Your task to perform on an android device: Do I have any events today? Image 0: 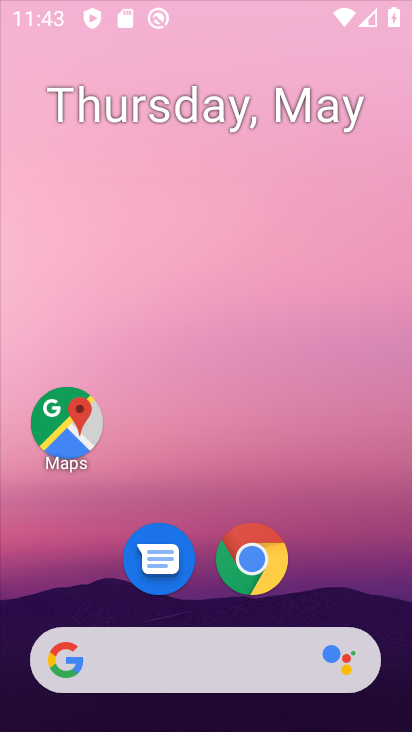
Step 0: drag from (271, 217) to (318, 24)
Your task to perform on an android device: Do I have any events today? Image 1: 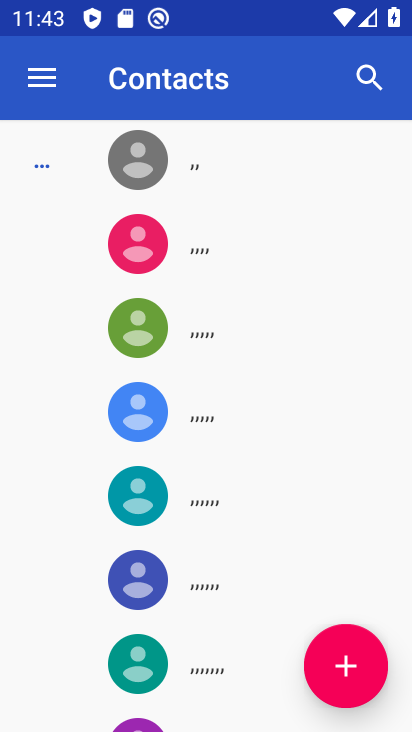
Step 1: press home button
Your task to perform on an android device: Do I have any events today? Image 2: 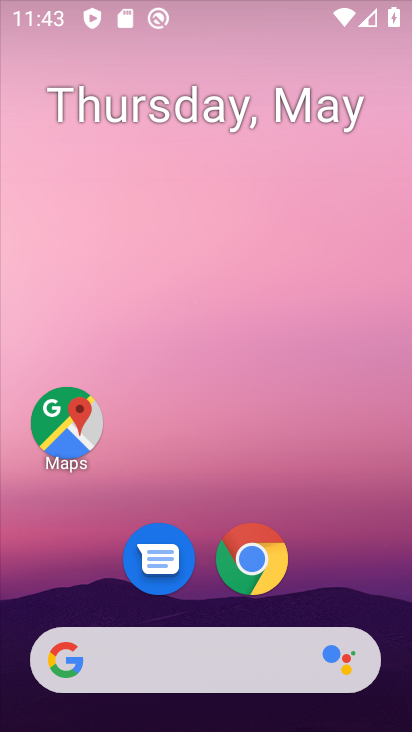
Step 2: drag from (209, 627) to (277, 8)
Your task to perform on an android device: Do I have any events today? Image 3: 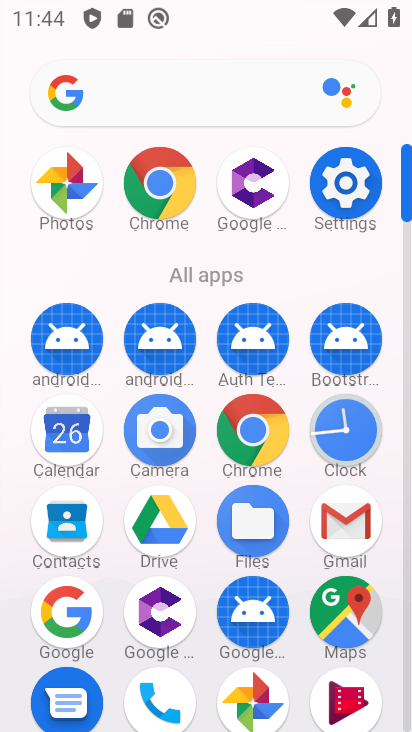
Step 3: click (82, 446)
Your task to perform on an android device: Do I have any events today? Image 4: 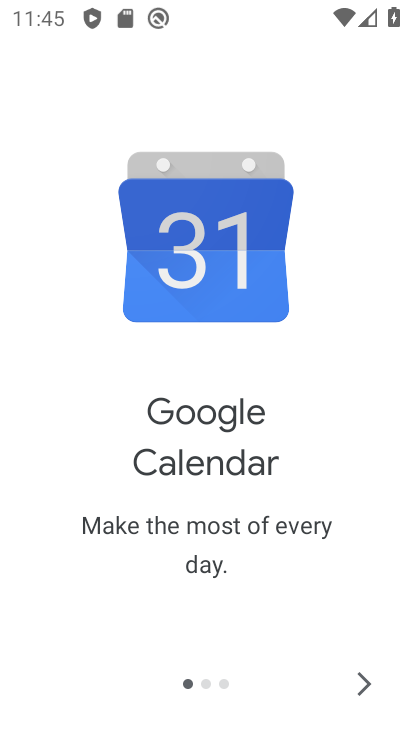
Step 4: click (361, 683)
Your task to perform on an android device: Do I have any events today? Image 5: 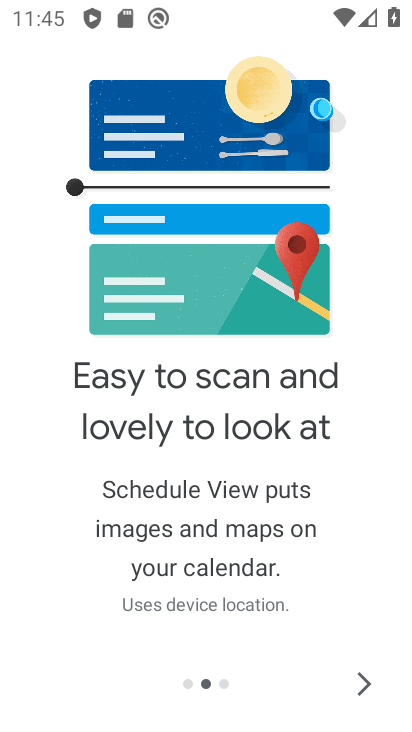
Step 5: click (356, 670)
Your task to perform on an android device: Do I have any events today? Image 6: 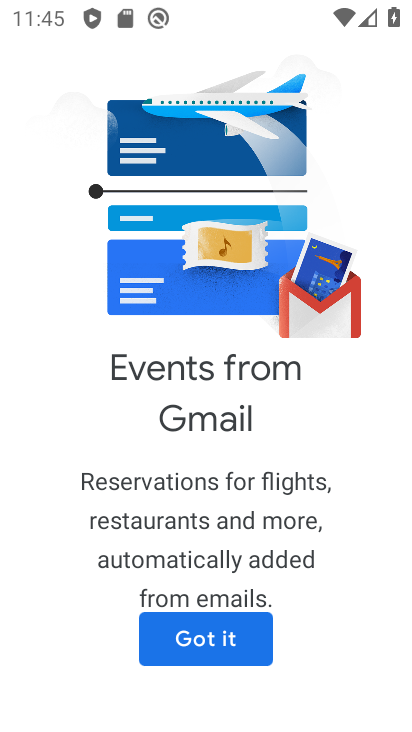
Step 6: click (241, 646)
Your task to perform on an android device: Do I have any events today? Image 7: 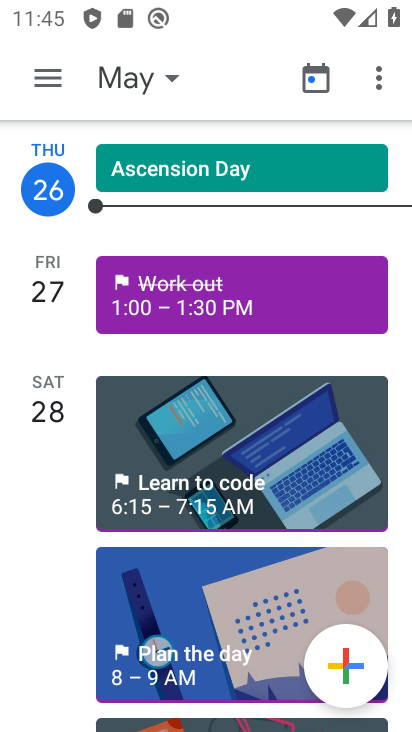
Step 7: click (152, 81)
Your task to perform on an android device: Do I have any events today? Image 8: 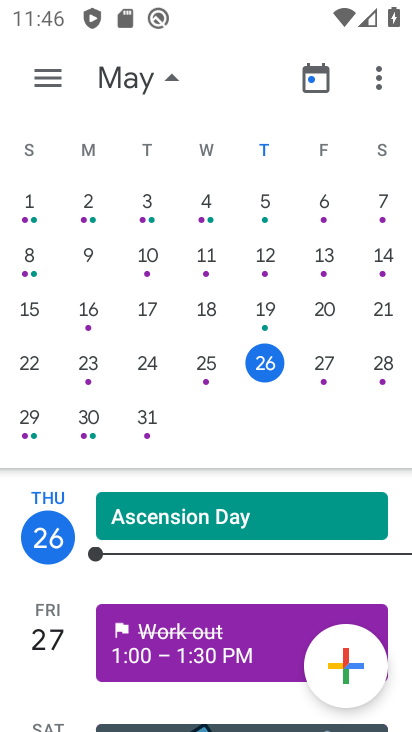
Step 8: click (266, 366)
Your task to perform on an android device: Do I have any events today? Image 9: 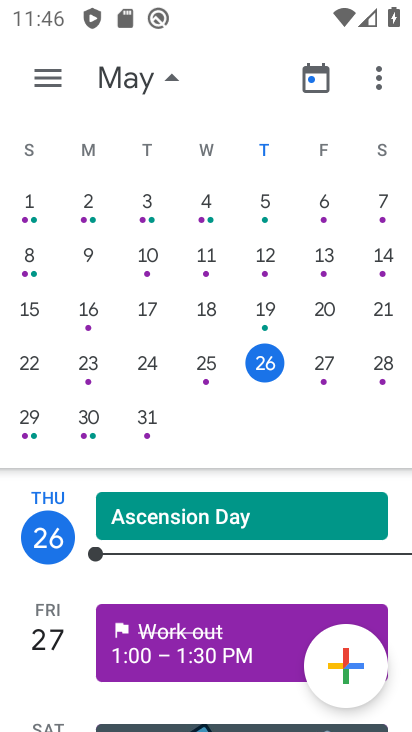
Step 9: task complete